Your task to perform on an android device: visit the assistant section in the google photos Image 0: 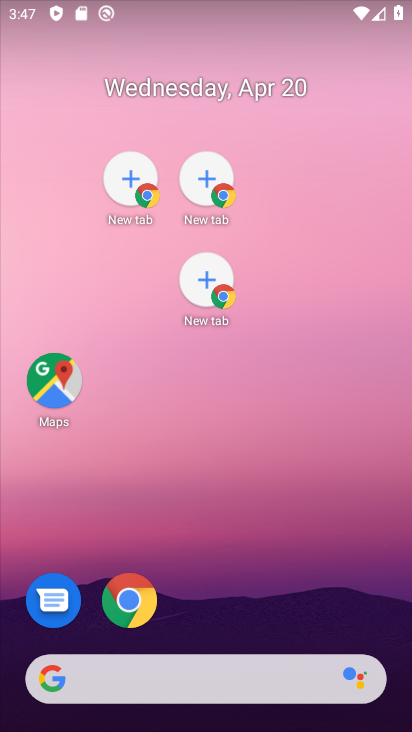
Step 0: drag from (218, 618) to (41, 83)
Your task to perform on an android device: visit the assistant section in the google photos Image 1: 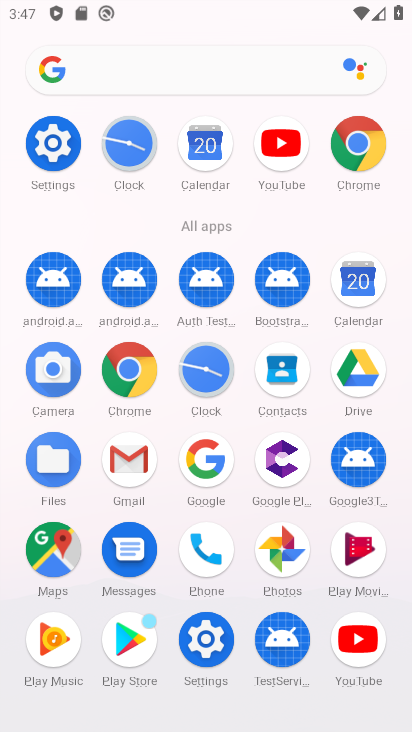
Step 1: click (285, 543)
Your task to perform on an android device: visit the assistant section in the google photos Image 2: 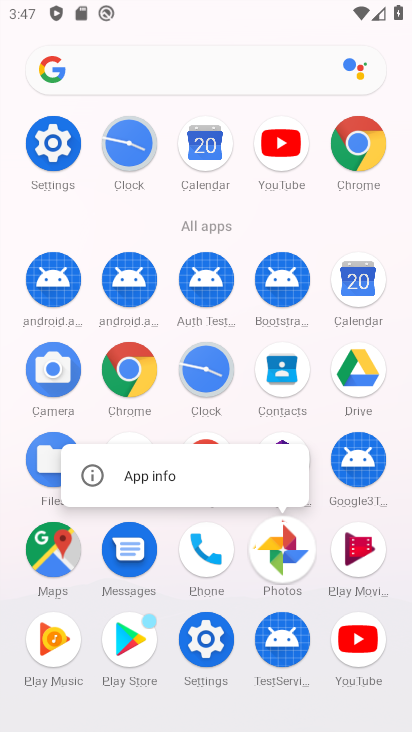
Step 2: click (285, 543)
Your task to perform on an android device: visit the assistant section in the google photos Image 3: 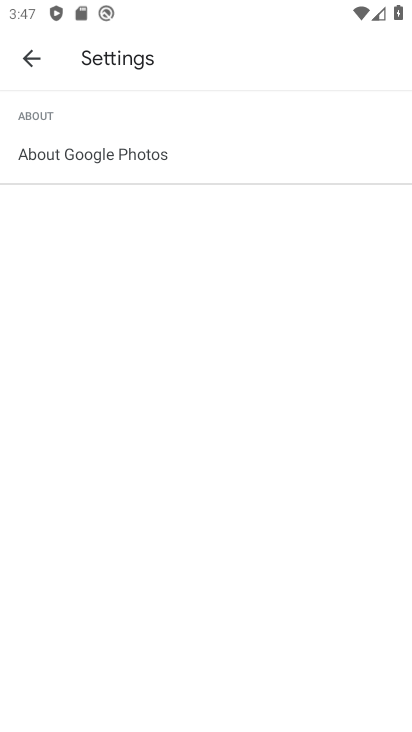
Step 3: click (28, 58)
Your task to perform on an android device: visit the assistant section in the google photos Image 4: 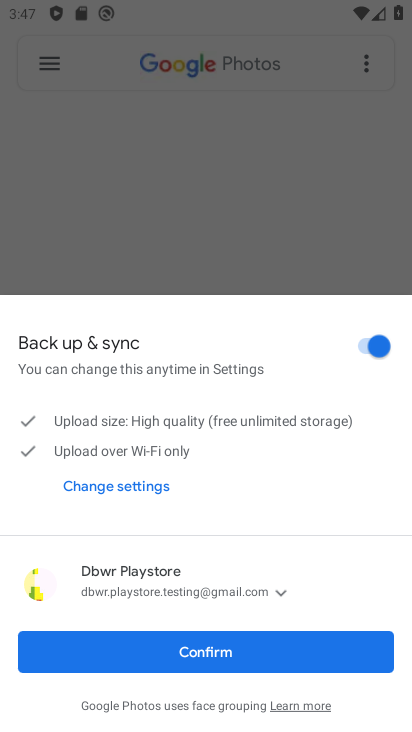
Step 4: click (188, 648)
Your task to perform on an android device: visit the assistant section in the google photos Image 5: 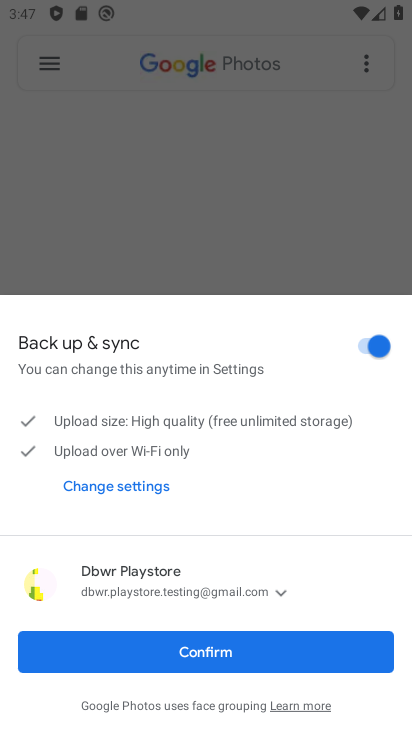
Step 5: click (200, 641)
Your task to perform on an android device: visit the assistant section in the google photos Image 6: 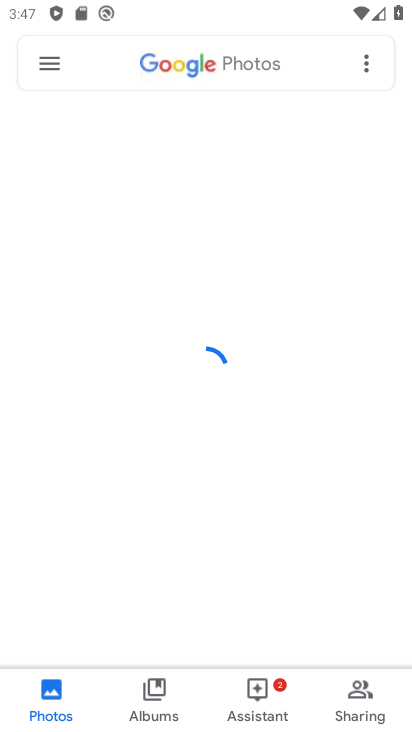
Step 6: click (195, 640)
Your task to perform on an android device: visit the assistant section in the google photos Image 7: 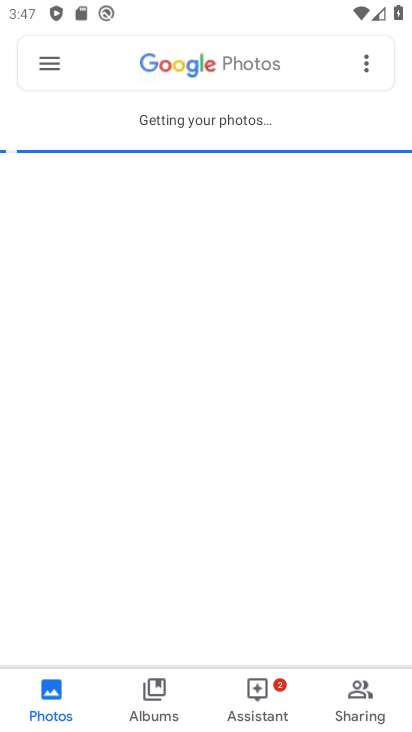
Step 7: click (261, 704)
Your task to perform on an android device: visit the assistant section in the google photos Image 8: 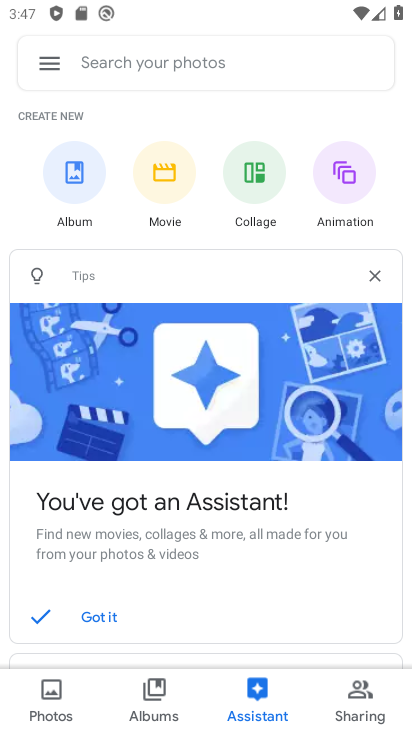
Step 8: task complete